Your task to perform on an android device: change the clock display to digital Image 0: 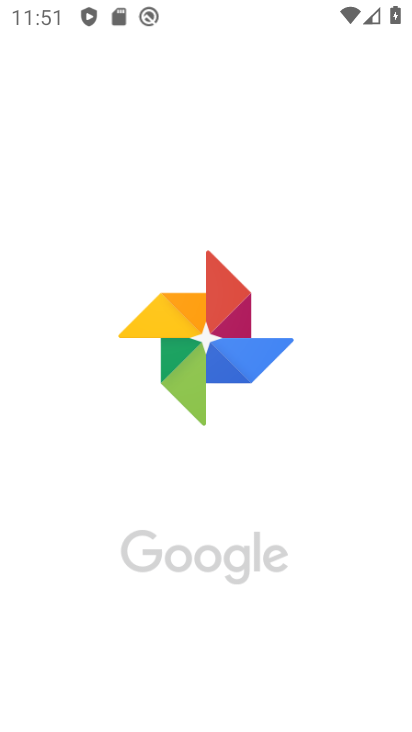
Step 0: drag from (383, 582) to (337, 229)
Your task to perform on an android device: change the clock display to digital Image 1: 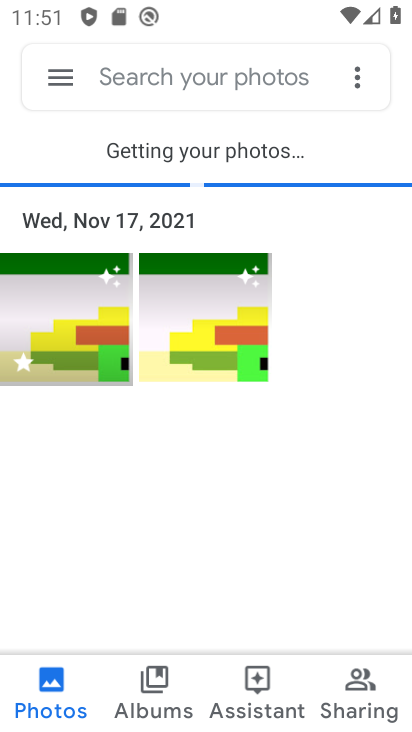
Step 1: press home button
Your task to perform on an android device: change the clock display to digital Image 2: 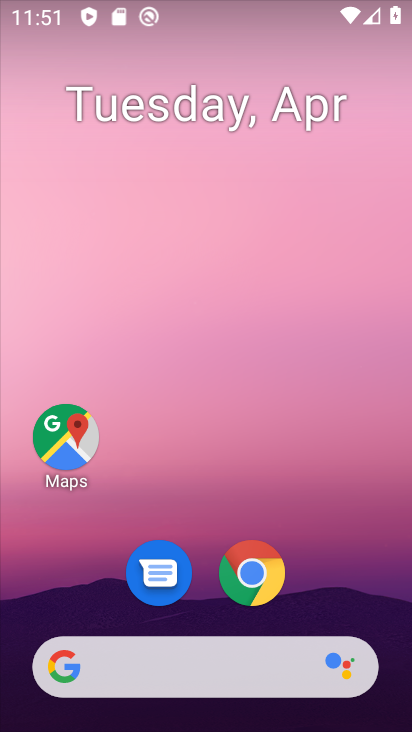
Step 2: drag from (372, 619) to (358, 205)
Your task to perform on an android device: change the clock display to digital Image 3: 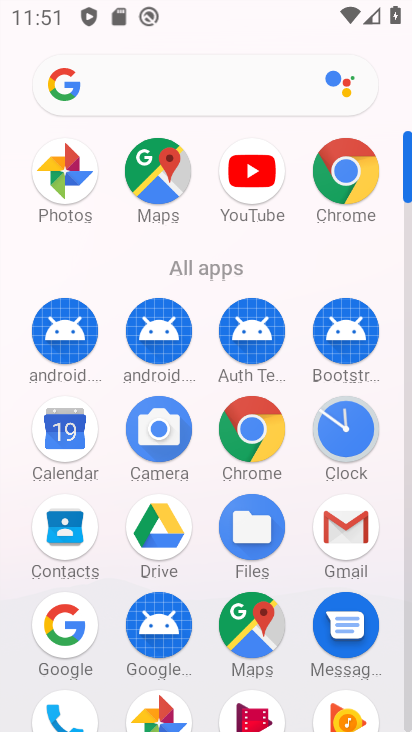
Step 3: click (357, 429)
Your task to perform on an android device: change the clock display to digital Image 4: 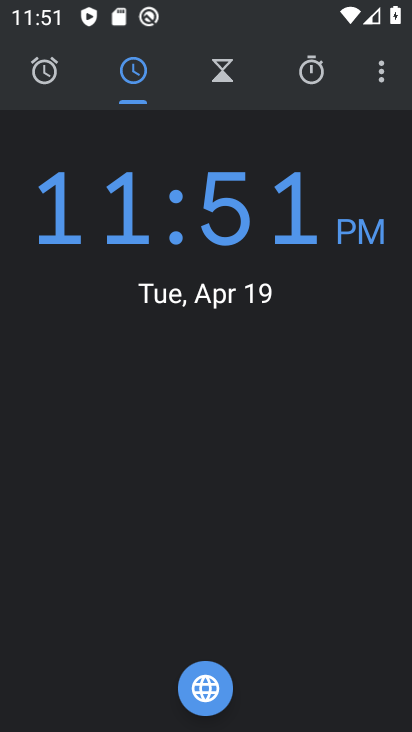
Step 4: click (364, 64)
Your task to perform on an android device: change the clock display to digital Image 5: 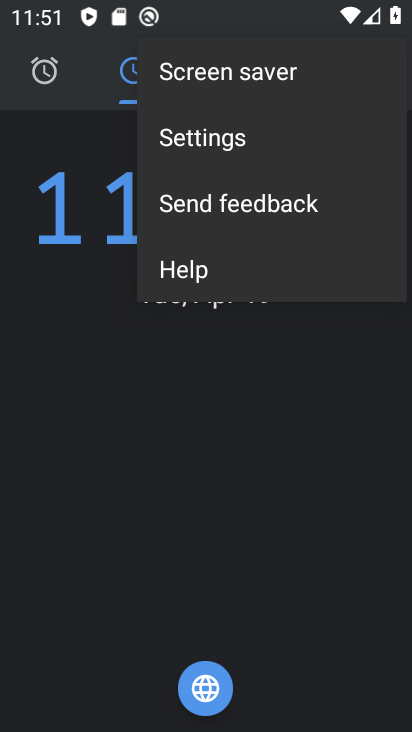
Step 5: click (301, 141)
Your task to perform on an android device: change the clock display to digital Image 6: 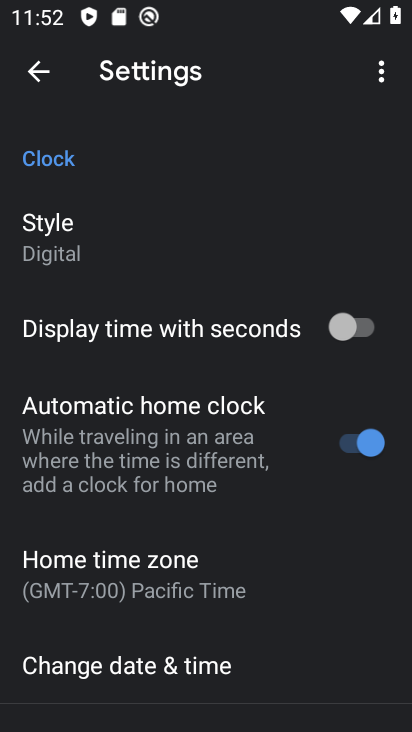
Step 6: click (167, 249)
Your task to perform on an android device: change the clock display to digital Image 7: 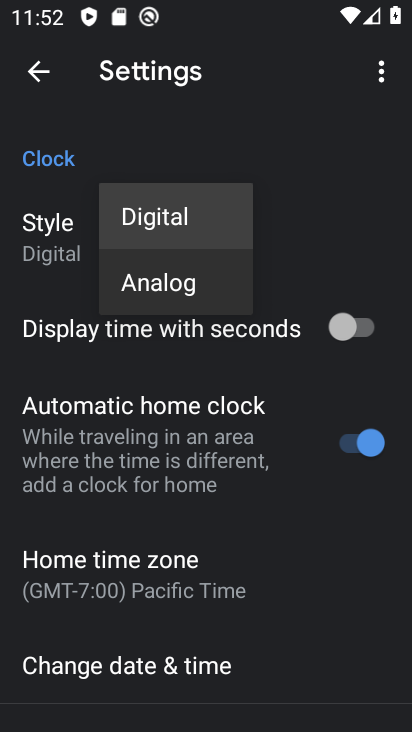
Step 7: task complete